Your task to perform on an android device: Search for sushi restaurants on Maps Image 0: 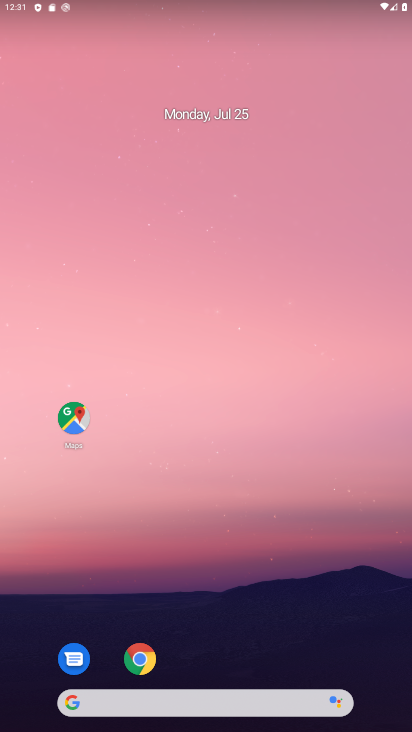
Step 0: drag from (248, 634) to (340, 63)
Your task to perform on an android device: Search for sushi restaurants on Maps Image 1: 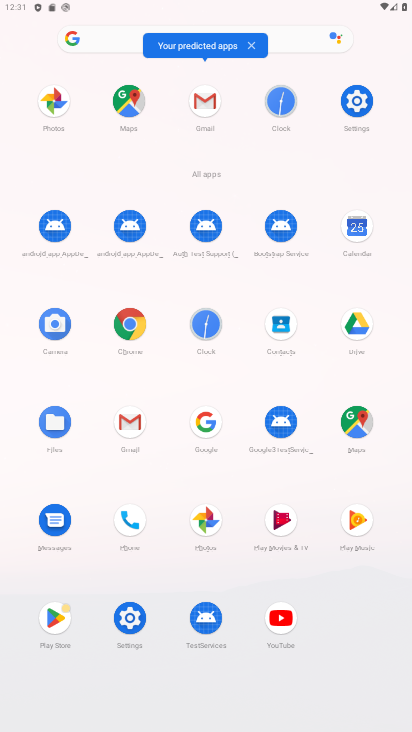
Step 1: click (140, 103)
Your task to perform on an android device: Search for sushi restaurants on Maps Image 2: 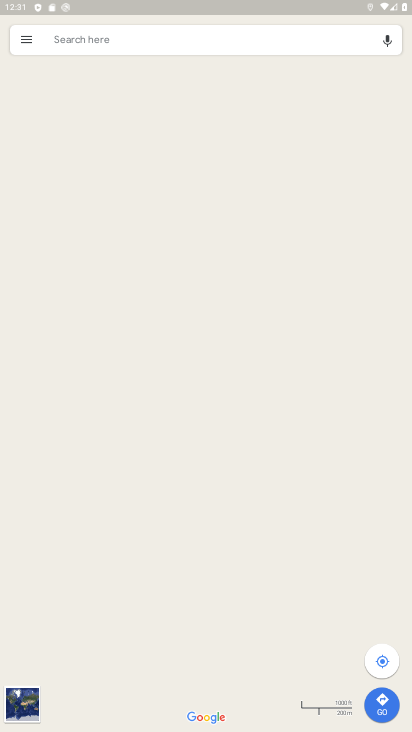
Step 2: click (154, 42)
Your task to perform on an android device: Search for sushi restaurants on Maps Image 3: 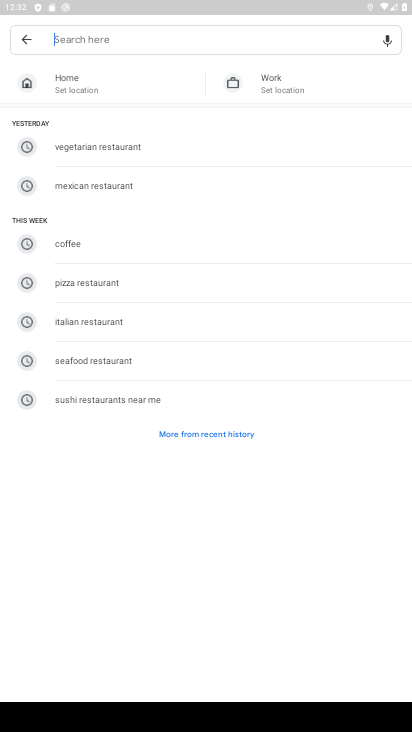
Step 3: type "sushi restaurants"
Your task to perform on an android device: Search for sushi restaurants on Maps Image 4: 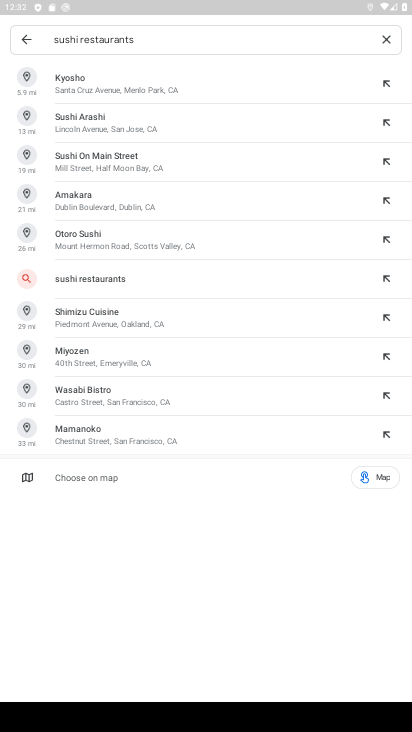
Step 4: press enter
Your task to perform on an android device: Search for sushi restaurants on Maps Image 5: 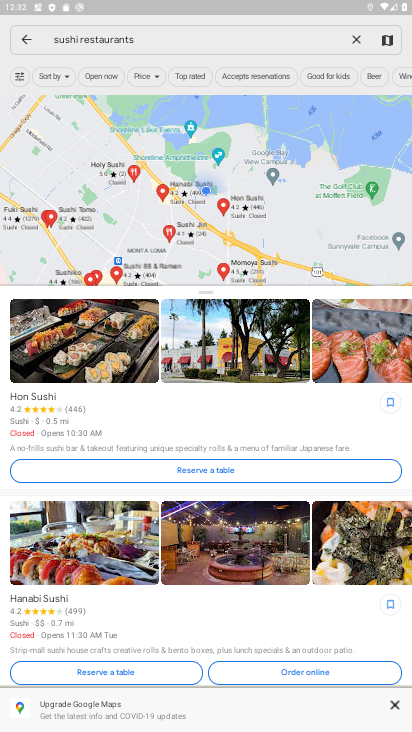
Step 5: press enter
Your task to perform on an android device: Search for sushi restaurants on Maps Image 6: 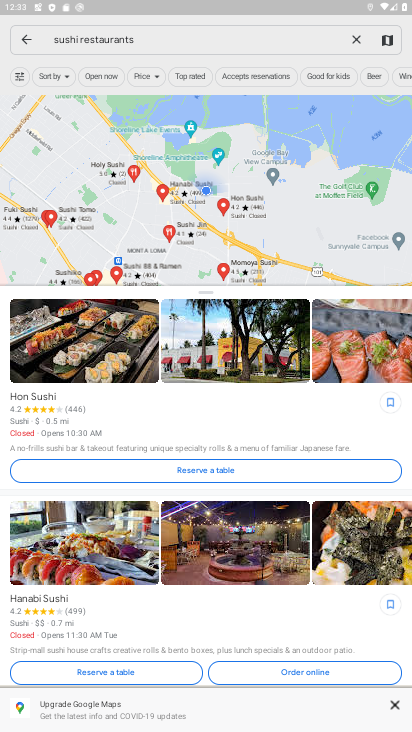
Step 6: task complete